Your task to perform on an android device: Go to CNN.com Image 0: 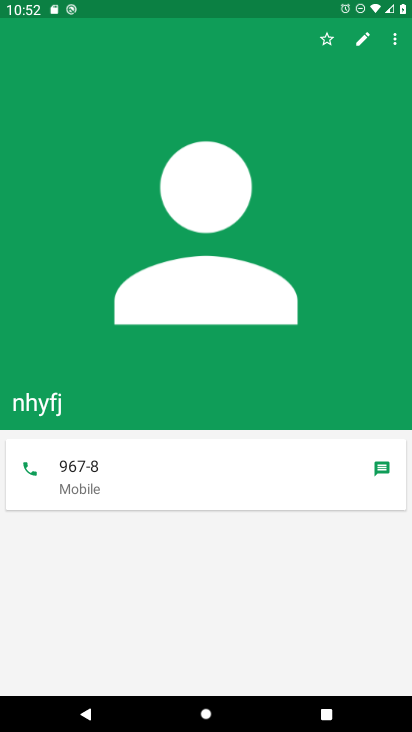
Step 0: press home button
Your task to perform on an android device: Go to CNN.com Image 1: 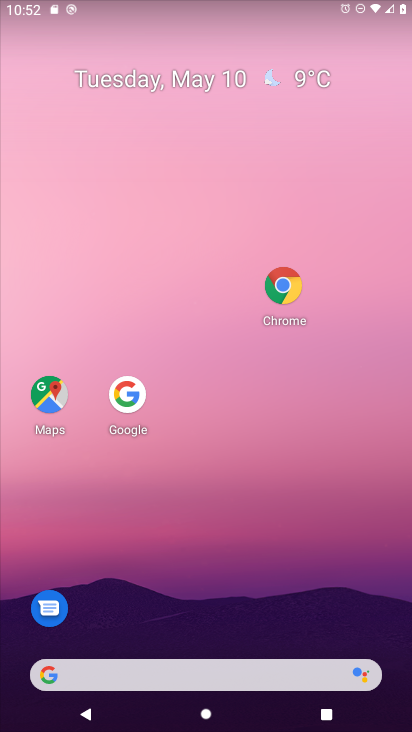
Step 1: drag from (123, 672) to (302, 127)
Your task to perform on an android device: Go to CNN.com Image 2: 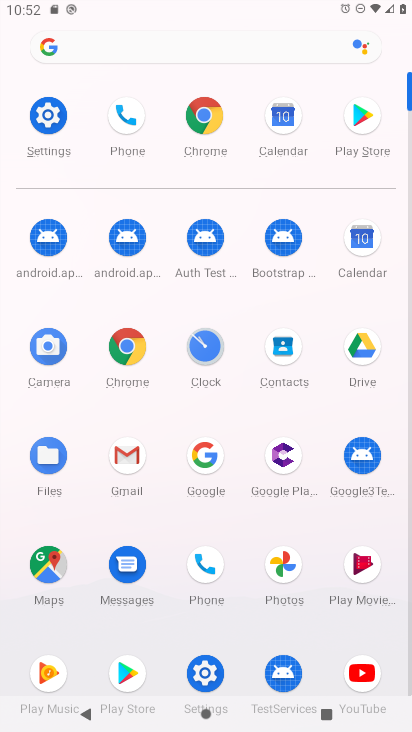
Step 2: click (215, 122)
Your task to perform on an android device: Go to CNN.com Image 3: 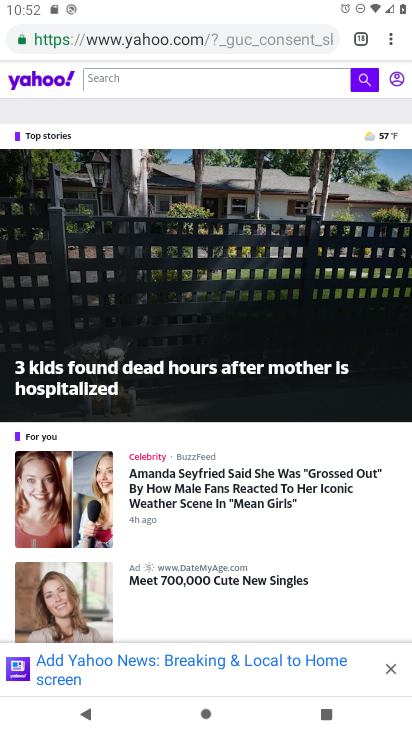
Step 3: drag from (390, 36) to (315, 83)
Your task to perform on an android device: Go to CNN.com Image 4: 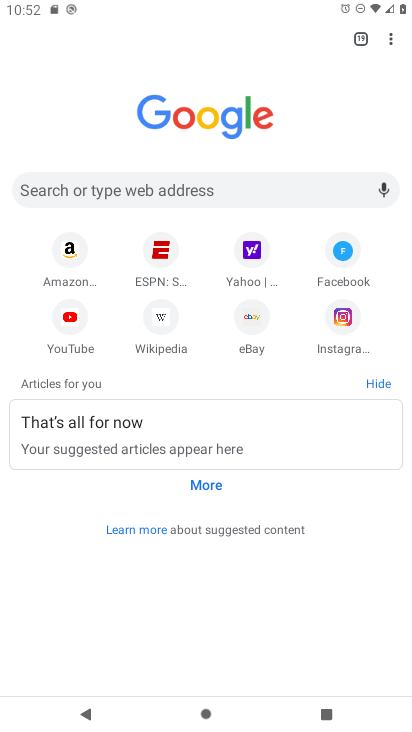
Step 4: click (170, 186)
Your task to perform on an android device: Go to CNN.com Image 5: 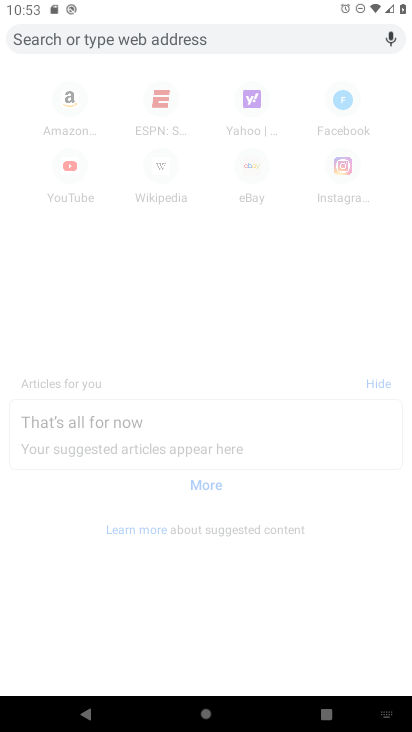
Step 5: type "cnn.com"
Your task to perform on an android device: Go to CNN.com Image 6: 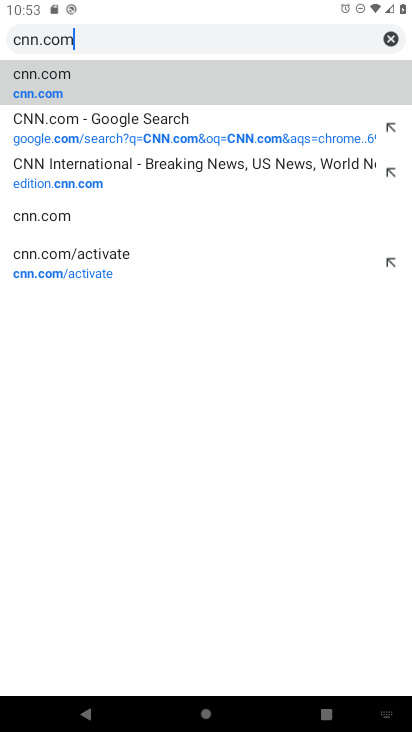
Step 6: click (44, 84)
Your task to perform on an android device: Go to CNN.com Image 7: 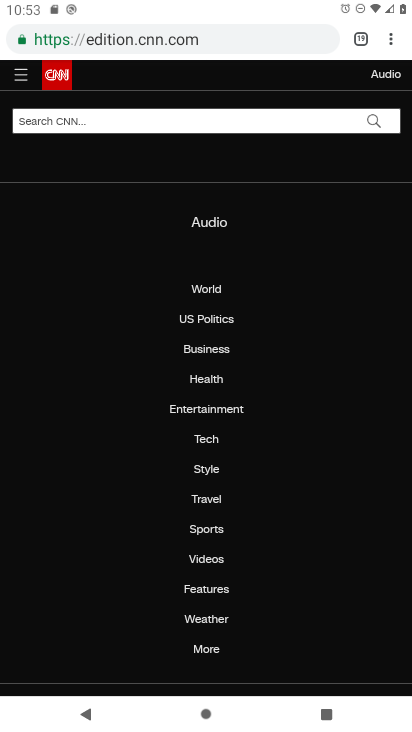
Step 7: task complete